Your task to perform on an android device: toggle airplane mode Image 0: 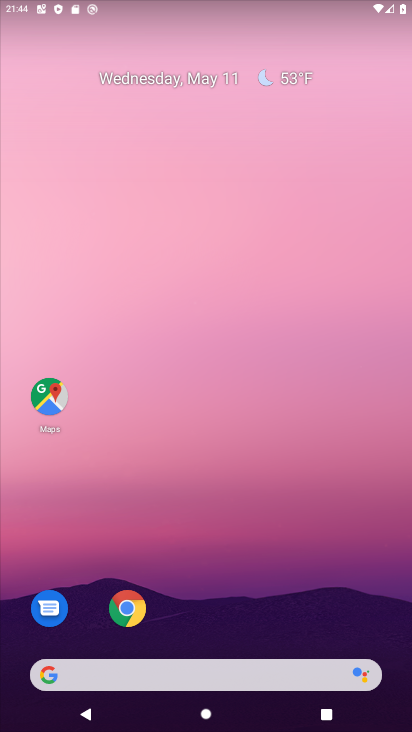
Step 0: drag from (205, 621) to (225, 188)
Your task to perform on an android device: toggle airplane mode Image 1: 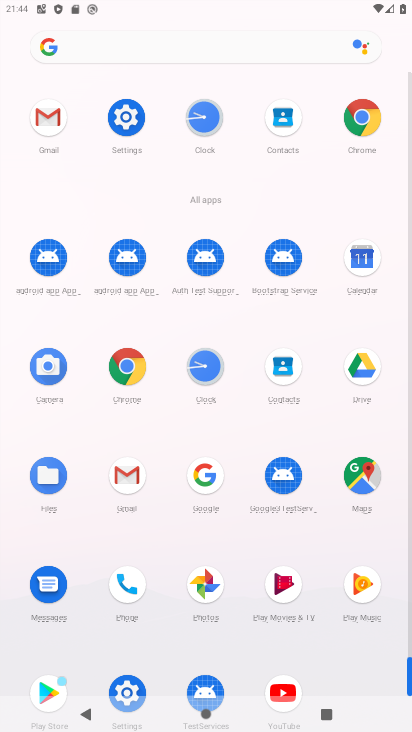
Step 1: click (125, 123)
Your task to perform on an android device: toggle airplane mode Image 2: 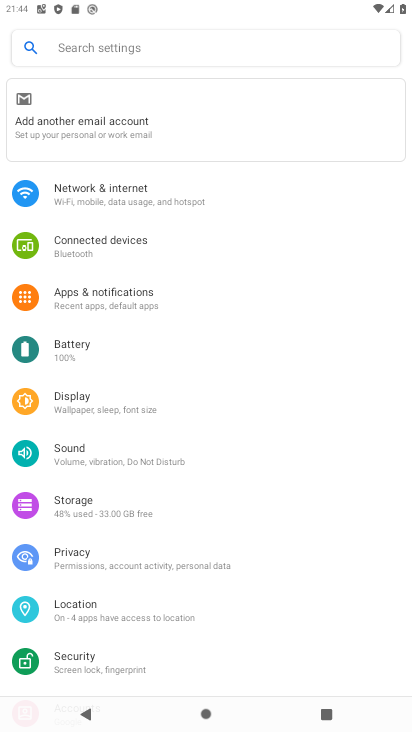
Step 2: click (166, 206)
Your task to perform on an android device: toggle airplane mode Image 3: 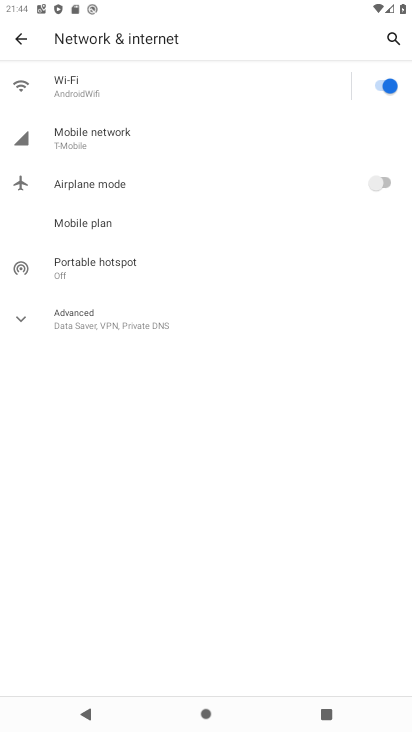
Step 3: click (370, 181)
Your task to perform on an android device: toggle airplane mode Image 4: 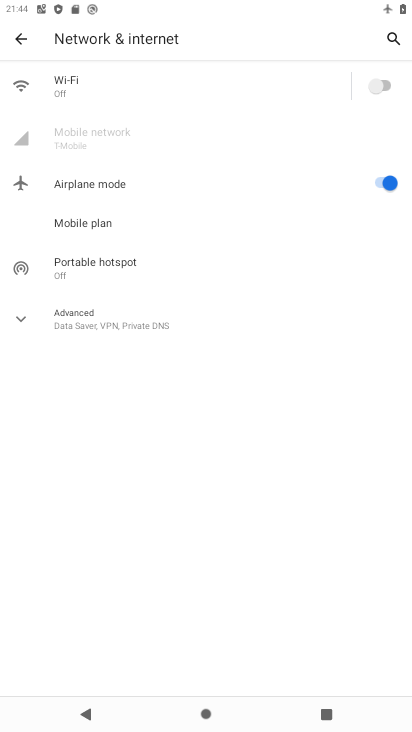
Step 4: task complete